Your task to perform on an android device: change the clock display to show seconds Image 0: 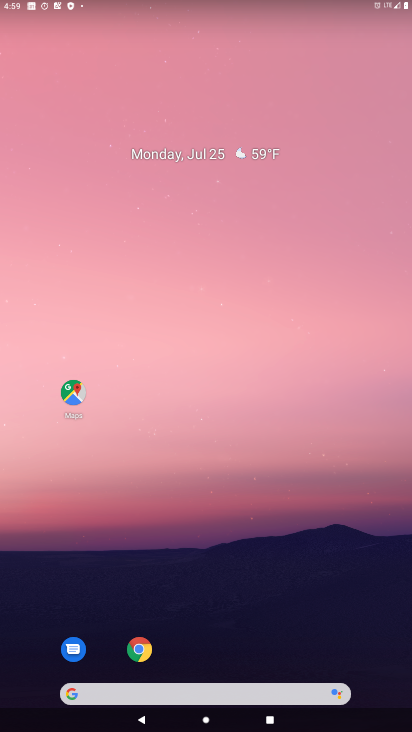
Step 0: drag from (287, 663) to (242, 148)
Your task to perform on an android device: change the clock display to show seconds Image 1: 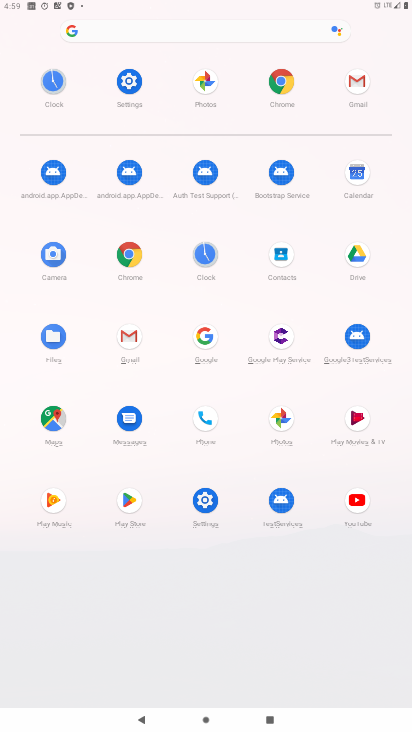
Step 1: click (211, 261)
Your task to perform on an android device: change the clock display to show seconds Image 2: 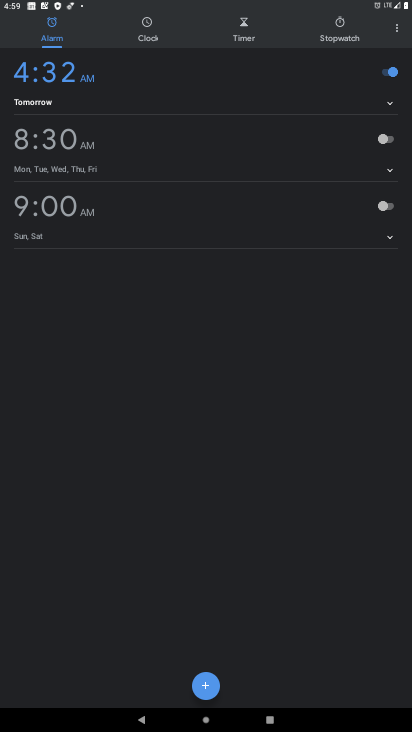
Step 2: click (403, 37)
Your task to perform on an android device: change the clock display to show seconds Image 3: 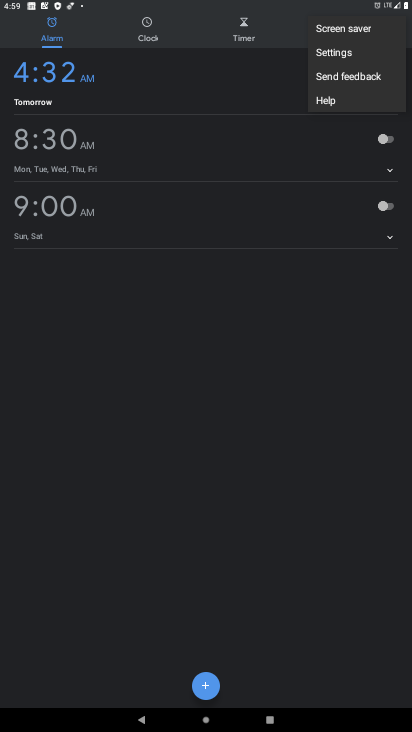
Step 3: click (358, 47)
Your task to perform on an android device: change the clock display to show seconds Image 4: 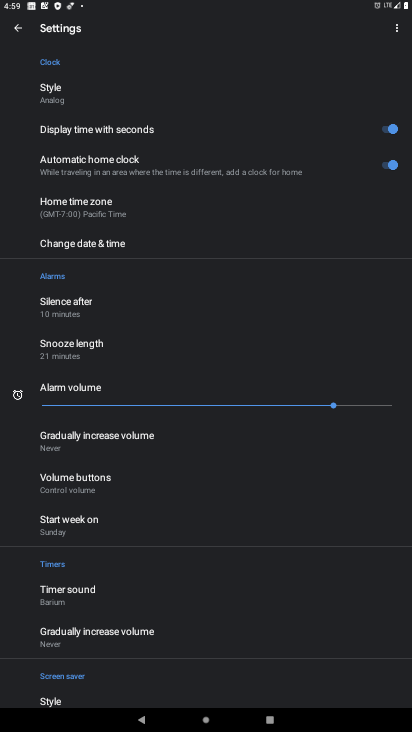
Step 4: task complete